Your task to perform on an android device: turn off improve location accuracy Image 0: 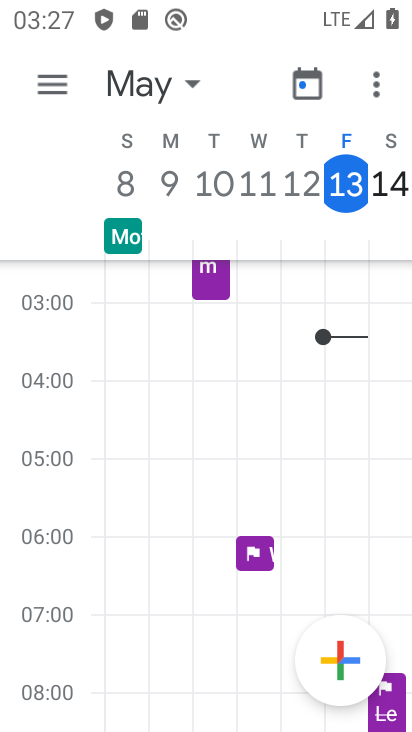
Step 0: press back button
Your task to perform on an android device: turn off improve location accuracy Image 1: 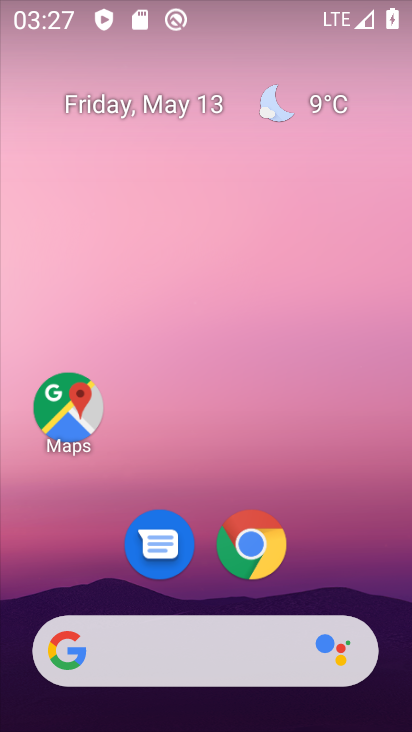
Step 1: drag from (350, 553) to (253, 43)
Your task to perform on an android device: turn off improve location accuracy Image 2: 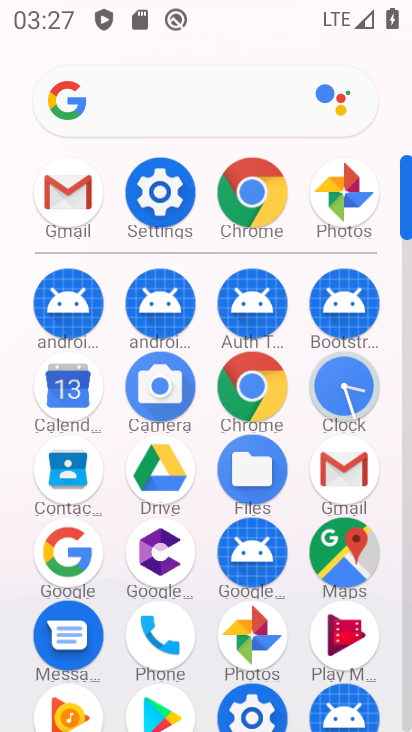
Step 2: click (156, 187)
Your task to perform on an android device: turn off improve location accuracy Image 3: 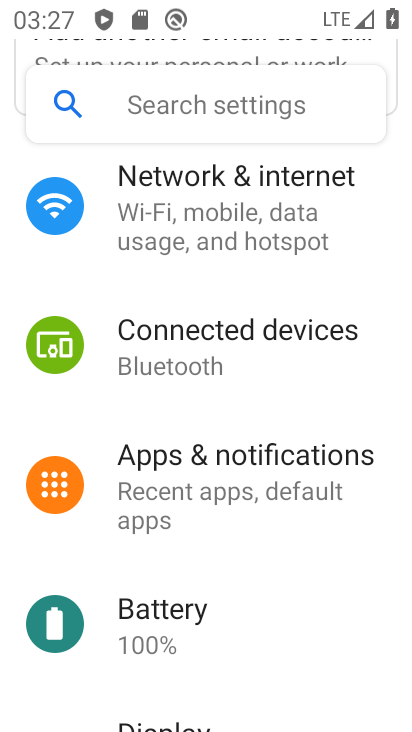
Step 3: drag from (265, 574) to (261, 207)
Your task to perform on an android device: turn off improve location accuracy Image 4: 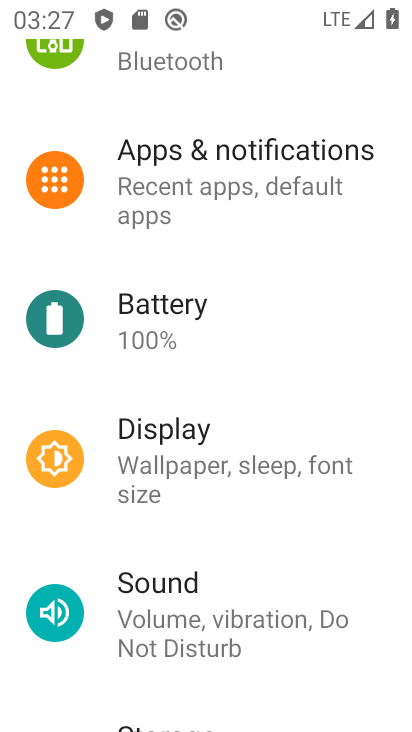
Step 4: drag from (268, 549) to (272, 135)
Your task to perform on an android device: turn off improve location accuracy Image 5: 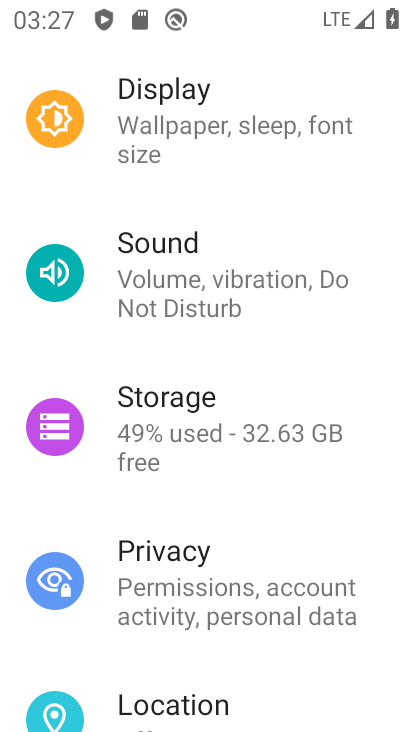
Step 5: drag from (277, 558) to (273, 165)
Your task to perform on an android device: turn off improve location accuracy Image 6: 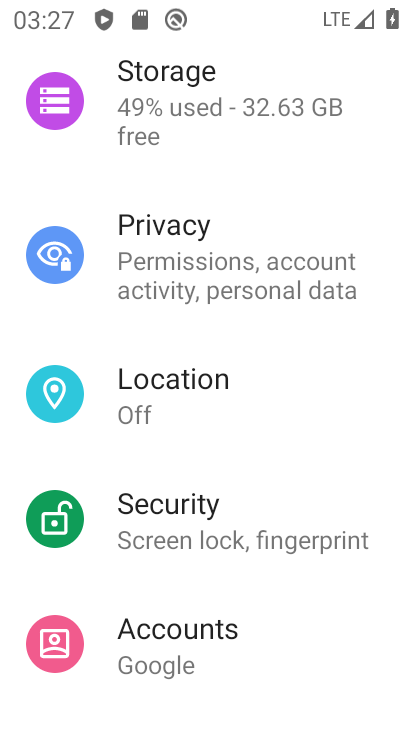
Step 6: click (197, 379)
Your task to perform on an android device: turn off improve location accuracy Image 7: 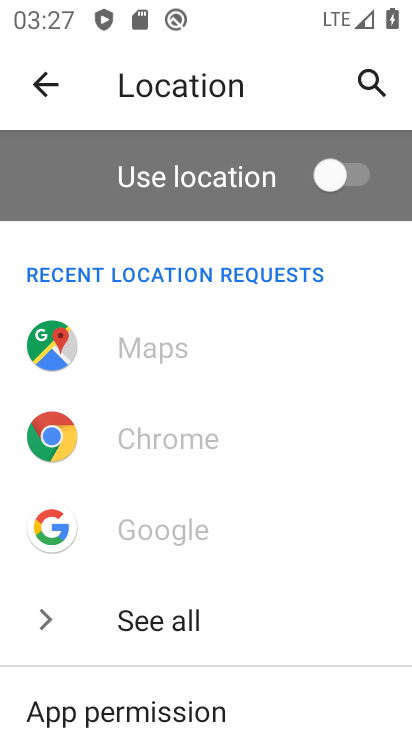
Step 7: drag from (273, 597) to (273, 165)
Your task to perform on an android device: turn off improve location accuracy Image 8: 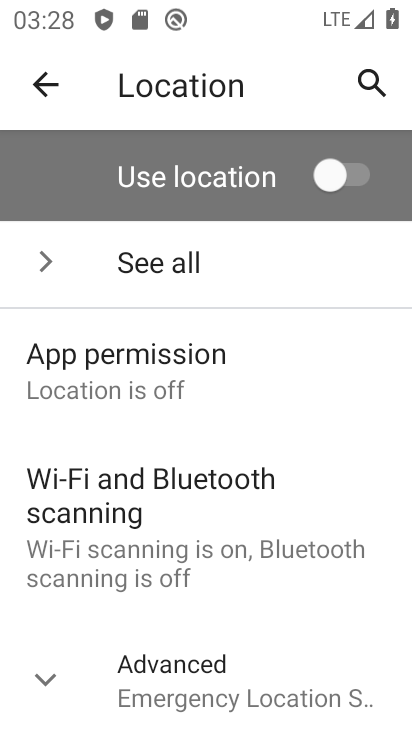
Step 8: drag from (199, 526) to (221, 210)
Your task to perform on an android device: turn off improve location accuracy Image 9: 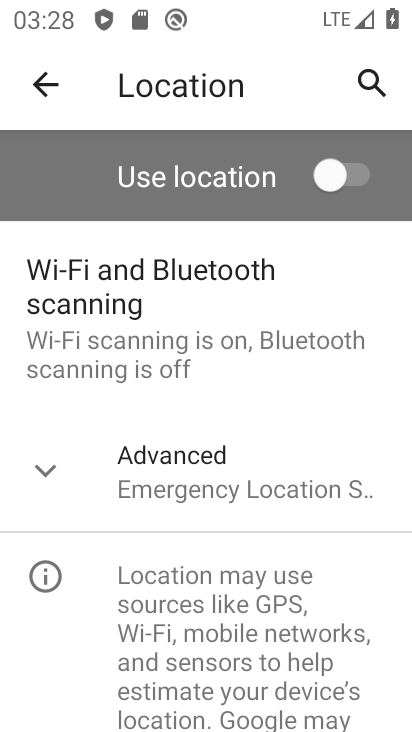
Step 9: click (218, 461)
Your task to perform on an android device: turn off improve location accuracy Image 10: 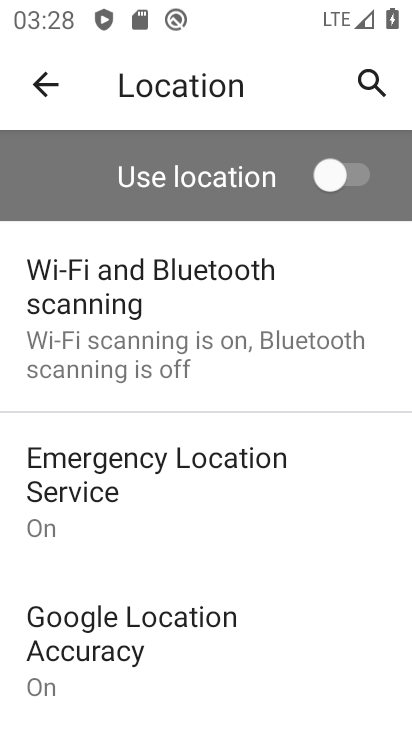
Step 10: drag from (230, 607) to (239, 298)
Your task to perform on an android device: turn off improve location accuracy Image 11: 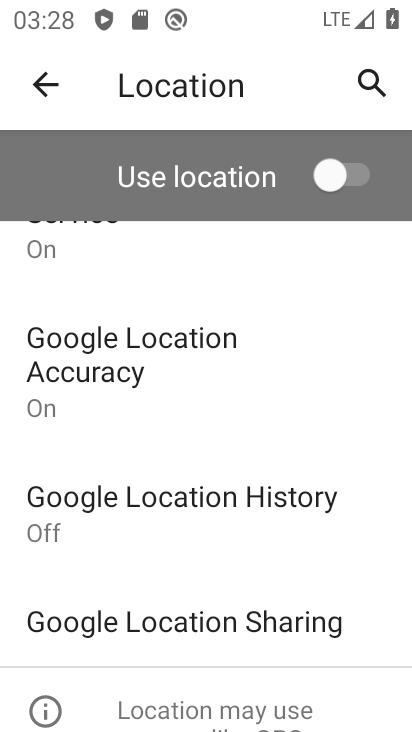
Step 11: click (176, 352)
Your task to perform on an android device: turn off improve location accuracy Image 12: 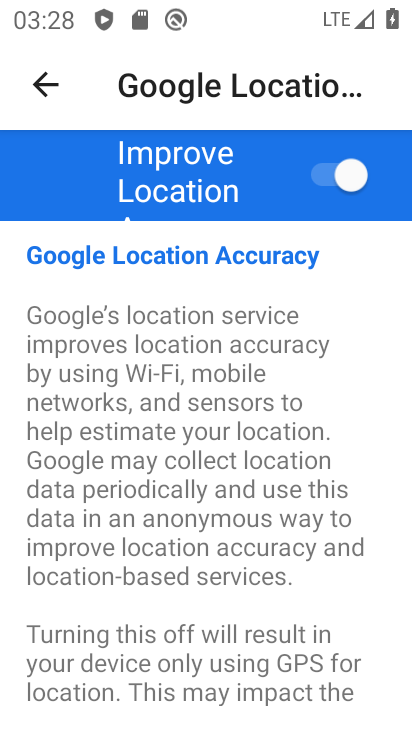
Step 12: click (340, 165)
Your task to perform on an android device: turn off improve location accuracy Image 13: 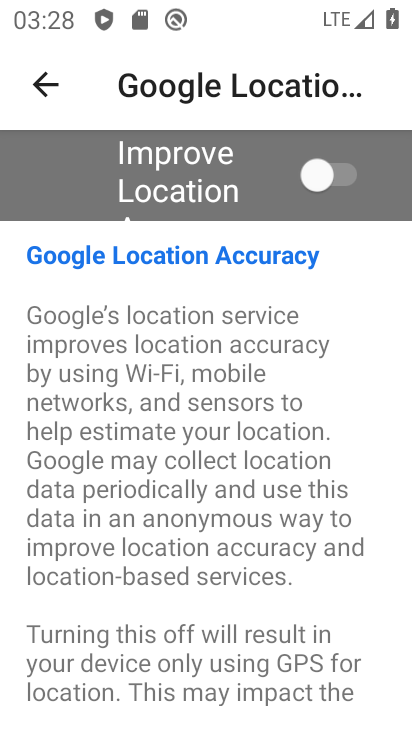
Step 13: task complete